Your task to perform on an android device: Open Chrome and go to the settings page Image 0: 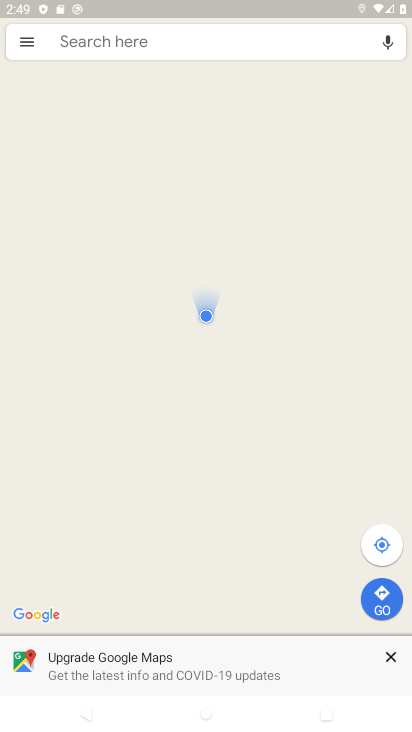
Step 0: press home button
Your task to perform on an android device: Open Chrome and go to the settings page Image 1: 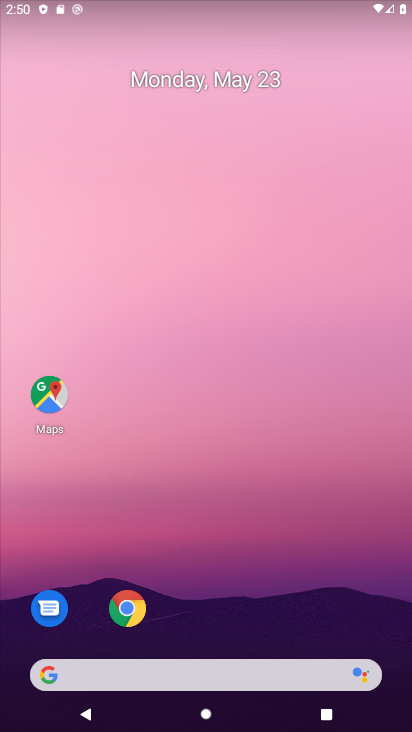
Step 1: drag from (309, 591) to (329, 204)
Your task to perform on an android device: Open Chrome and go to the settings page Image 2: 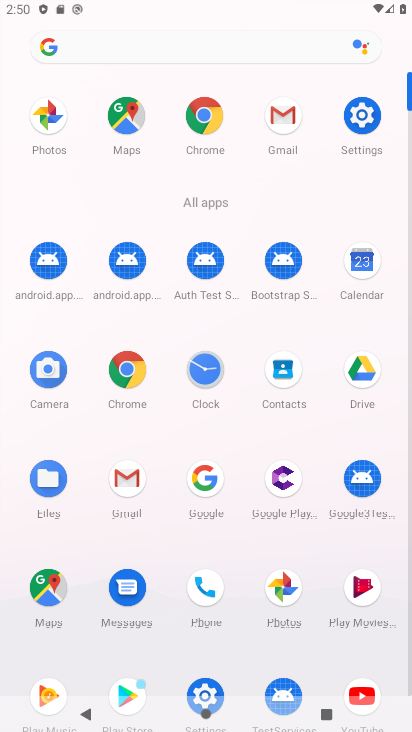
Step 2: click (127, 387)
Your task to perform on an android device: Open Chrome and go to the settings page Image 3: 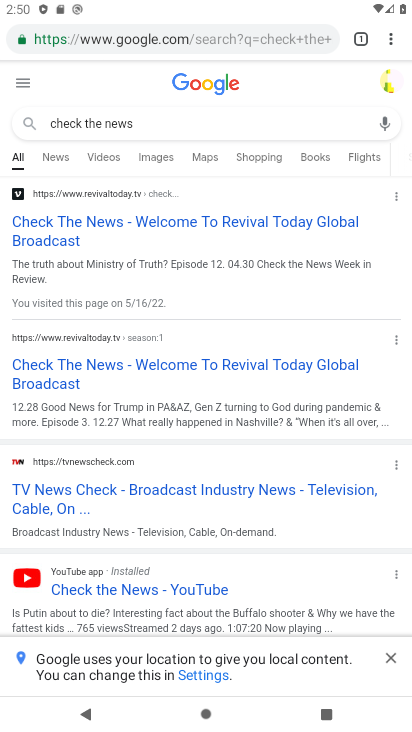
Step 3: task complete